Your task to perform on an android device: see tabs open on other devices in the chrome app Image 0: 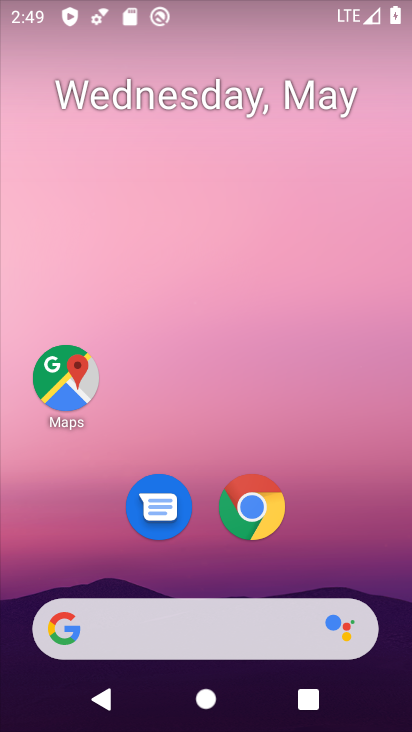
Step 0: drag from (348, 584) to (280, 77)
Your task to perform on an android device: see tabs open on other devices in the chrome app Image 1: 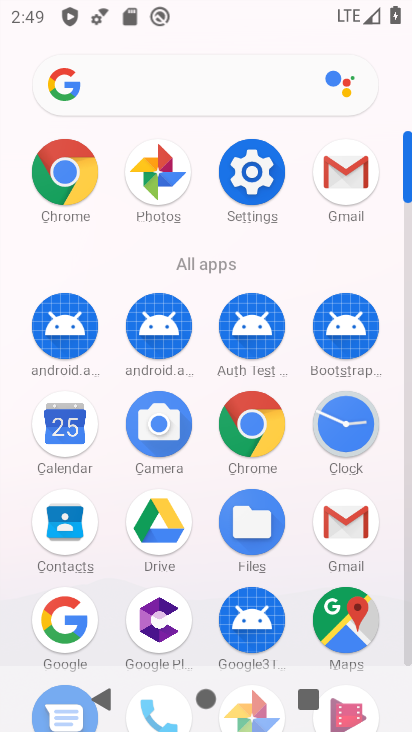
Step 1: drag from (8, 589) to (6, 258)
Your task to perform on an android device: see tabs open on other devices in the chrome app Image 2: 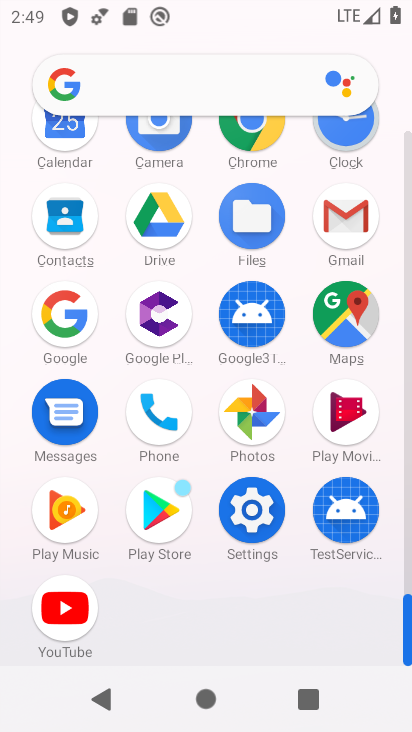
Step 2: drag from (21, 184) to (32, 383)
Your task to perform on an android device: see tabs open on other devices in the chrome app Image 3: 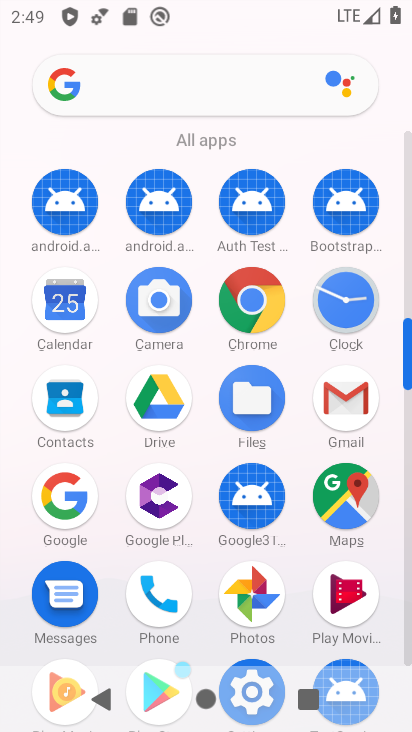
Step 3: click (254, 295)
Your task to perform on an android device: see tabs open on other devices in the chrome app Image 4: 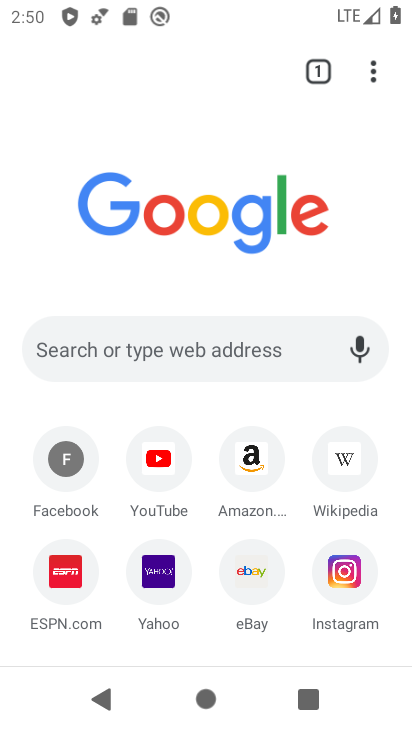
Step 4: task complete